Your task to perform on an android device: Open display settings Image 0: 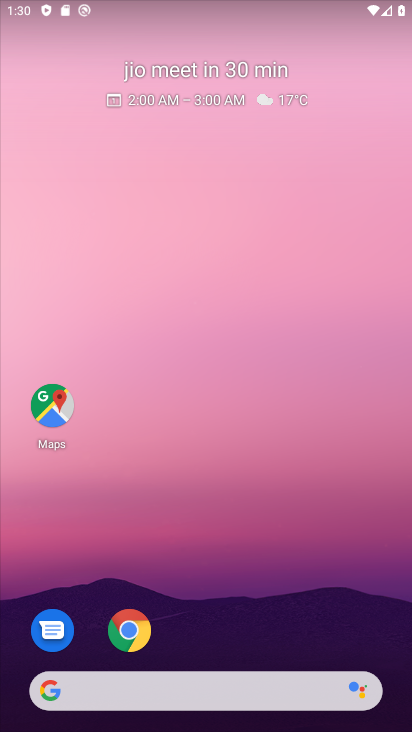
Step 0: drag from (243, 592) to (307, 84)
Your task to perform on an android device: Open display settings Image 1: 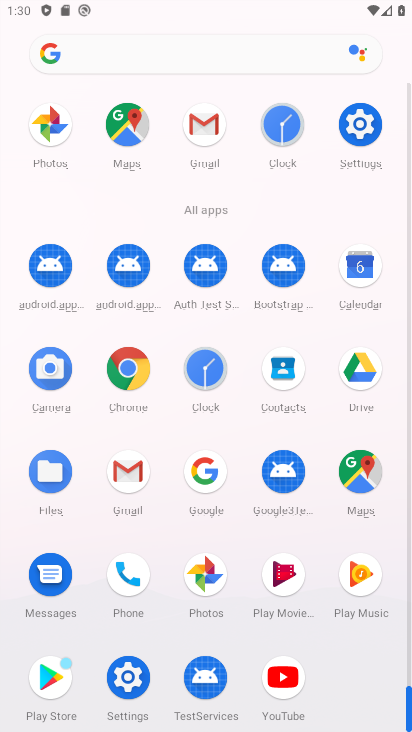
Step 1: click (129, 673)
Your task to perform on an android device: Open display settings Image 2: 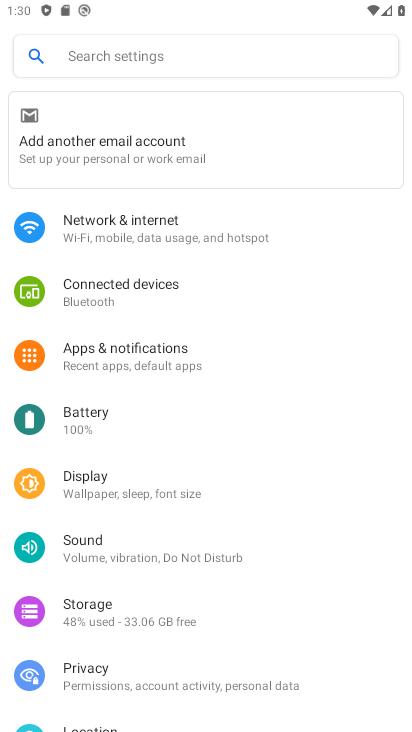
Step 2: click (120, 473)
Your task to perform on an android device: Open display settings Image 3: 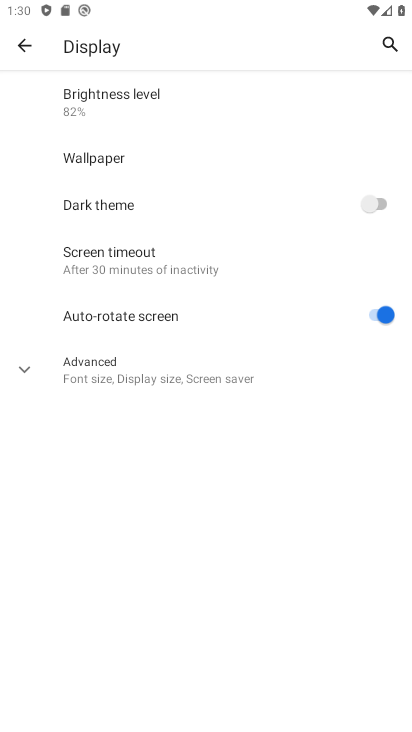
Step 3: task complete